Your task to perform on an android device: Open internet settings Image 0: 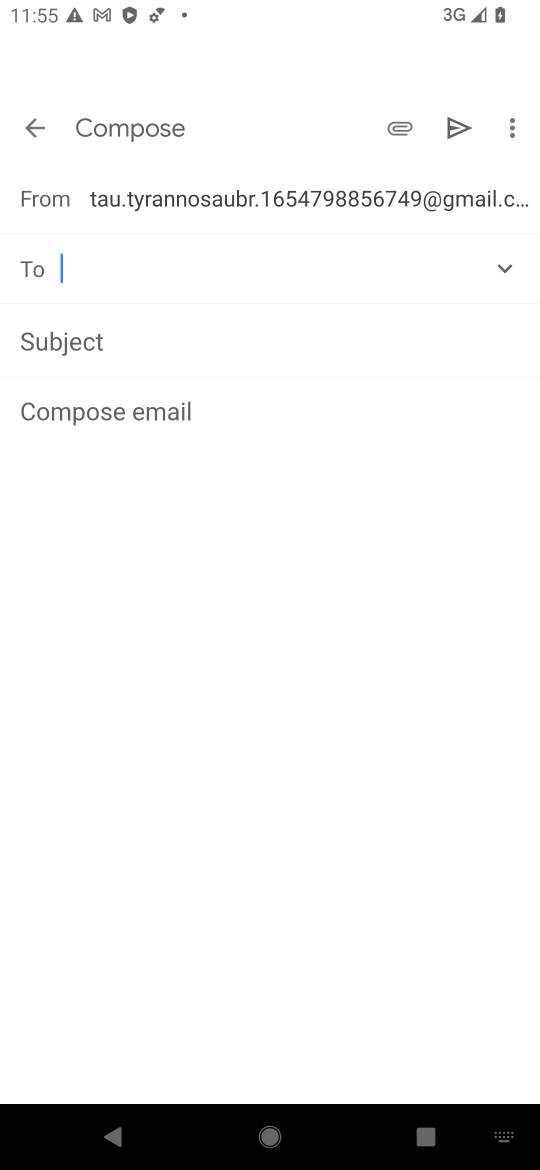
Step 0: press home button
Your task to perform on an android device: Open internet settings Image 1: 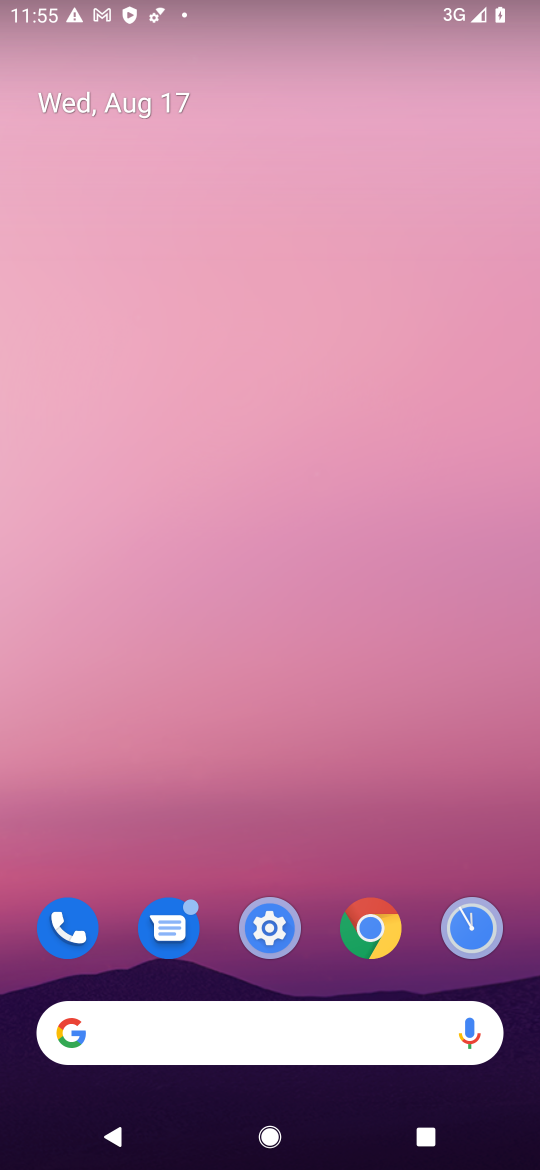
Step 1: click (285, 925)
Your task to perform on an android device: Open internet settings Image 2: 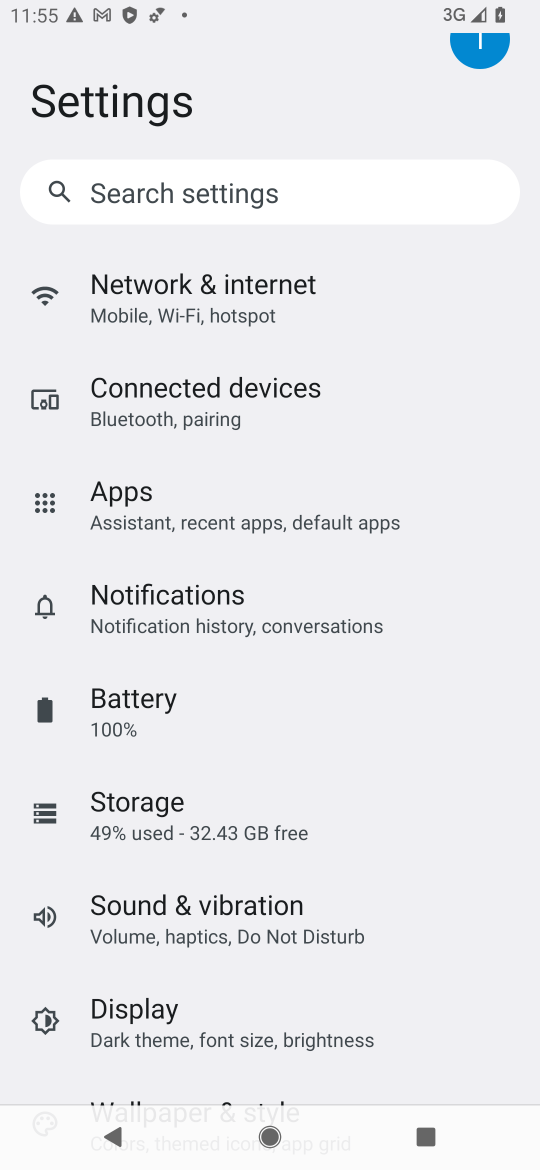
Step 2: click (244, 297)
Your task to perform on an android device: Open internet settings Image 3: 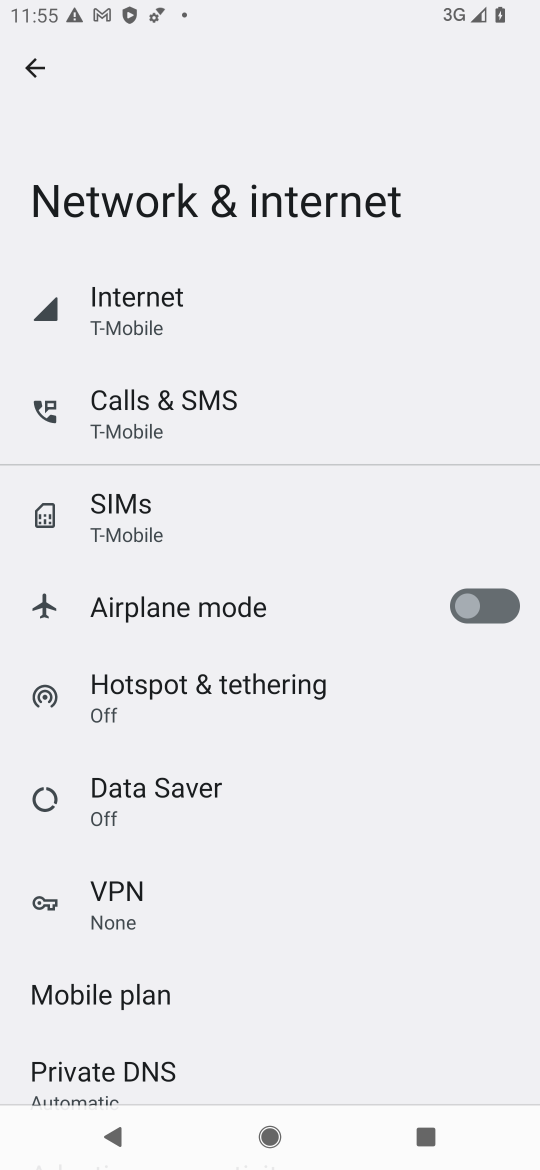
Step 3: click (223, 292)
Your task to perform on an android device: Open internet settings Image 4: 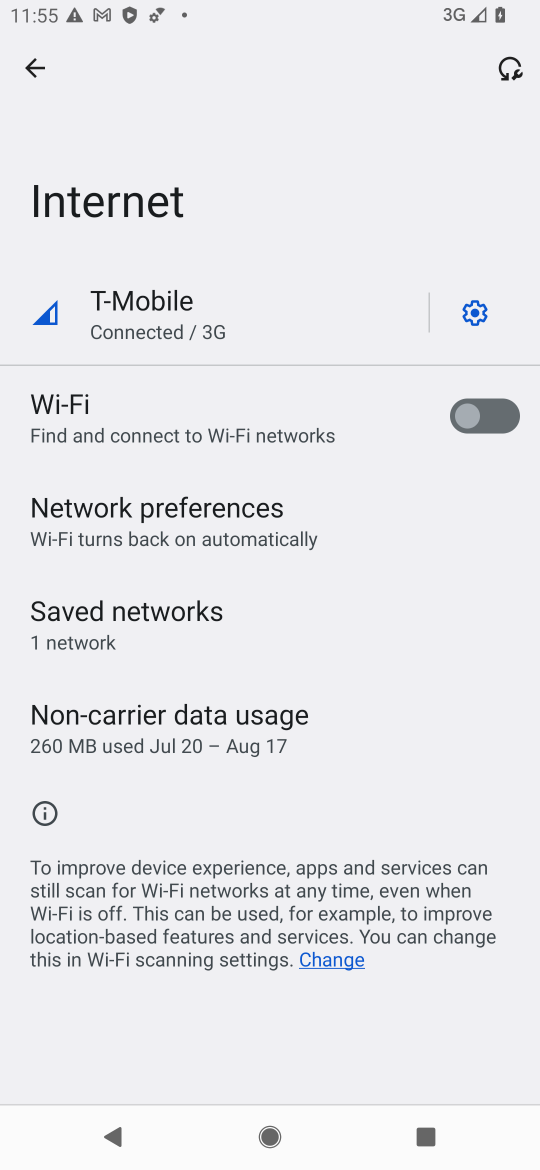
Step 4: task complete